Your task to perform on an android device: Open accessibility settings Image 0: 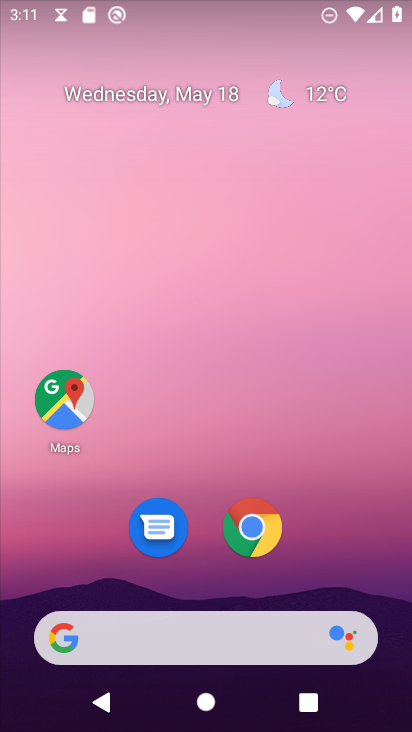
Step 0: drag from (325, 496) to (216, 68)
Your task to perform on an android device: Open accessibility settings Image 1: 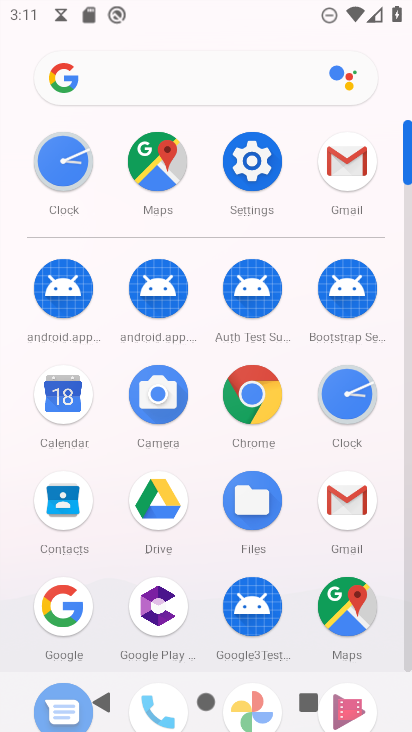
Step 1: click (254, 155)
Your task to perform on an android device: Open accessibility settings Image 2: 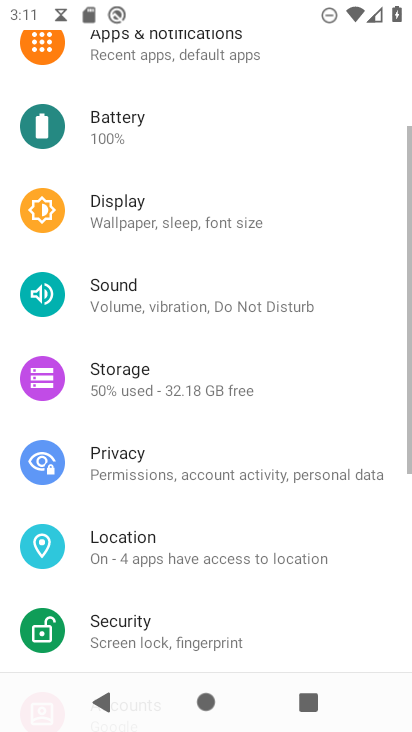
Step 2: drag from (223, 562) to (182, 100)
Your task to perform on an android device: Open accessibility settings Image 3: 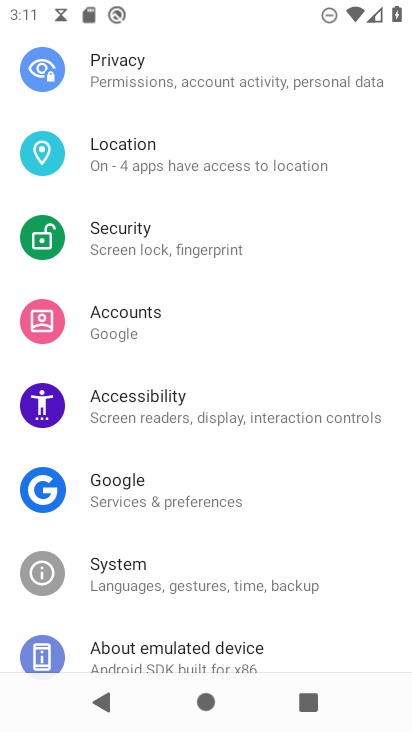
Step 3: click (199, 395)
Your task to perform on an android device: Open accessibility settings Image 4: 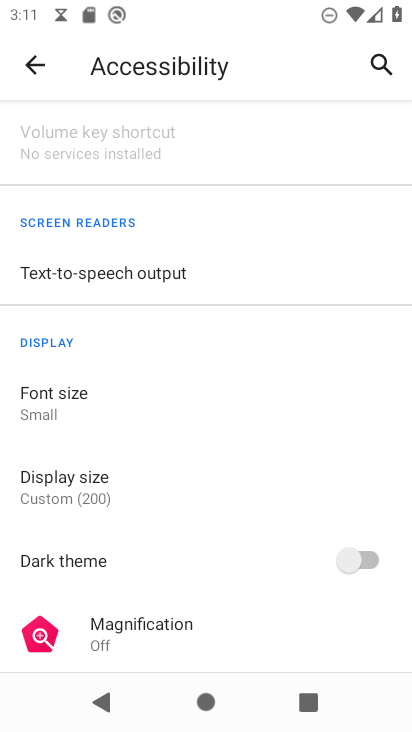
Step 4: task complete